Your task to perform on an android device: open app "Google Pay: Save, Pay, Manage" Image 0: 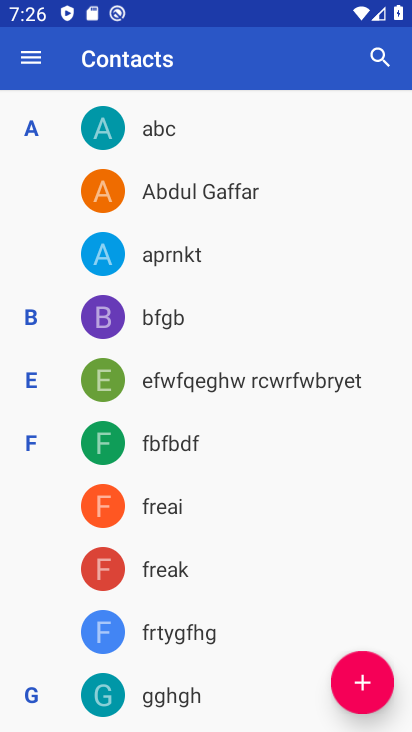
Step 0: press home button
Your task to perform on an android device: open app "Google Pay: Save, Pay, Manage" Image 1: 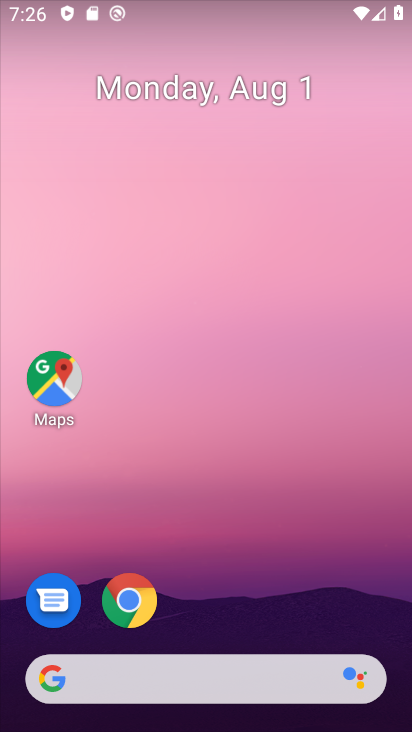
Step 1: drag from (146, 578) to (45, 34)
Your task to perform on an android device: open app "Google Pay: Save, Pay, Manage" Image 2: 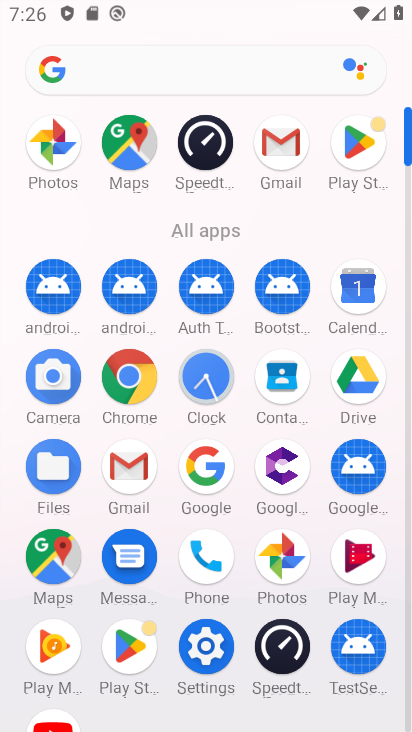
Step 2: click (351, 136)
Your task to perform on an android device: open app "Google Pay: Save, Pay, Manage" Image 3: 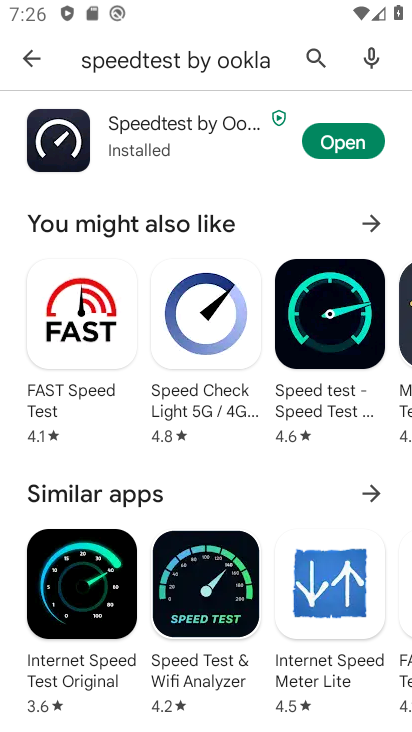
Step 3: click (28, 62)
Your task to perform on an android device: open app "Google Pay: Save, Pay, Manage" Image 4: 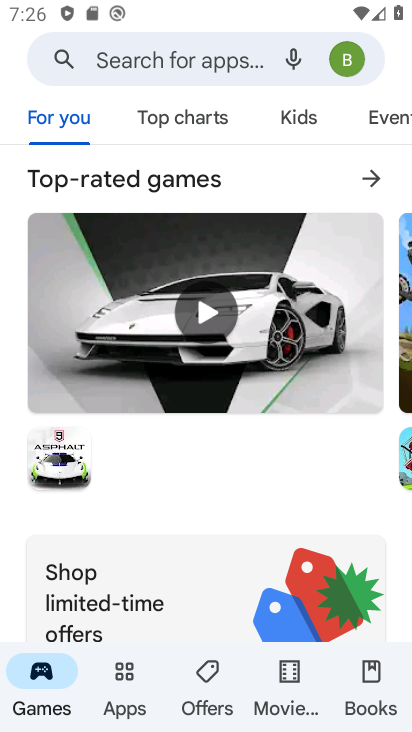
Step 4: click (117, 62)
Your task to perform on an android device: open app "Google Pay: Save, Pay, Manage" Image 5: 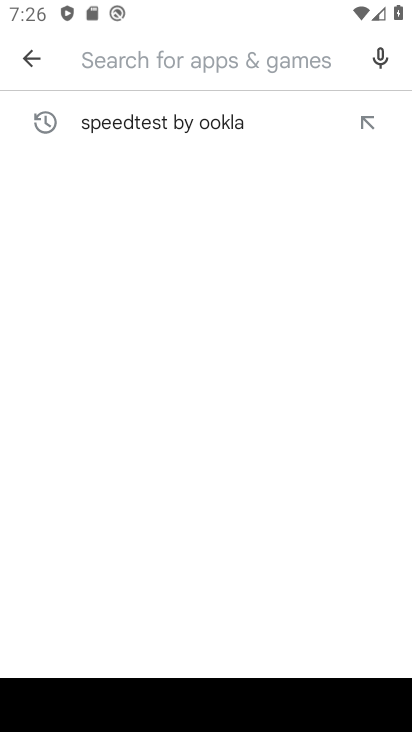
Step 5: type "Google Pay"
Your task to perform on an android device: open app "Google Pay: Save, Pay, Manage" Image 6: 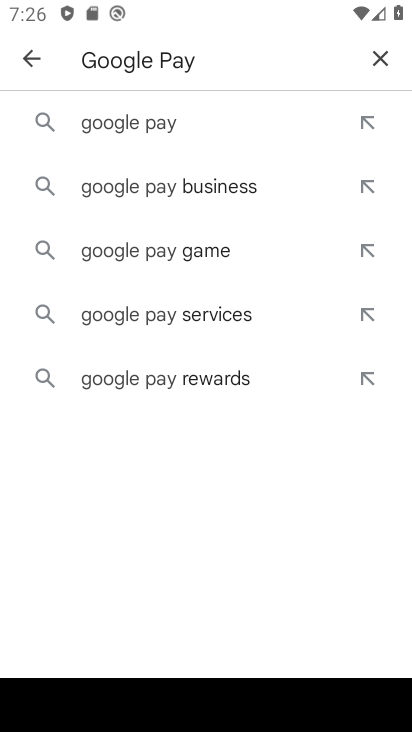
Step 6: click (151, 133)
Your task to perform on an android device: open app "Google Pay: Save, Pay, Manage" Image 7: 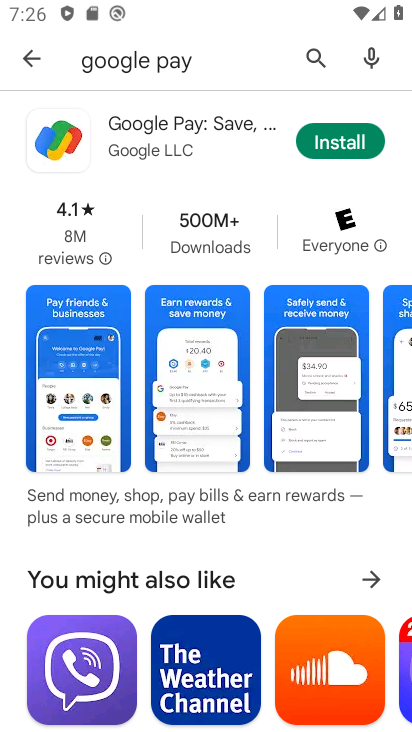
Step 7: click (319, 135)
Your task to perform on an android device: open app "Google Pay: Save, Pay, Manage" Image 8: 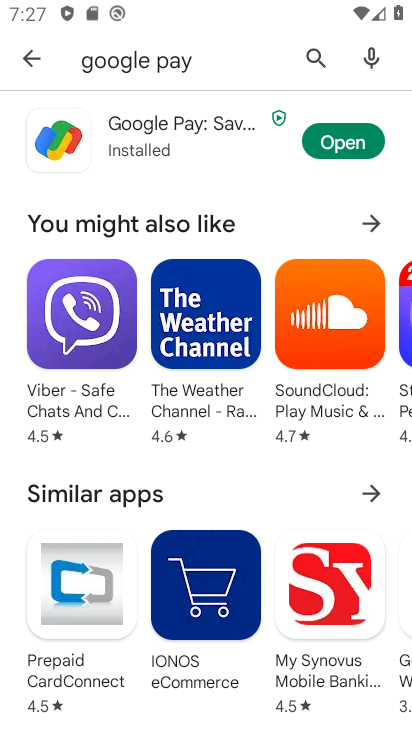
Step 8: click (327, 135)
Your task to perform on an android device: open app "Google Pay: Save, Pay, Manage" Image 9: 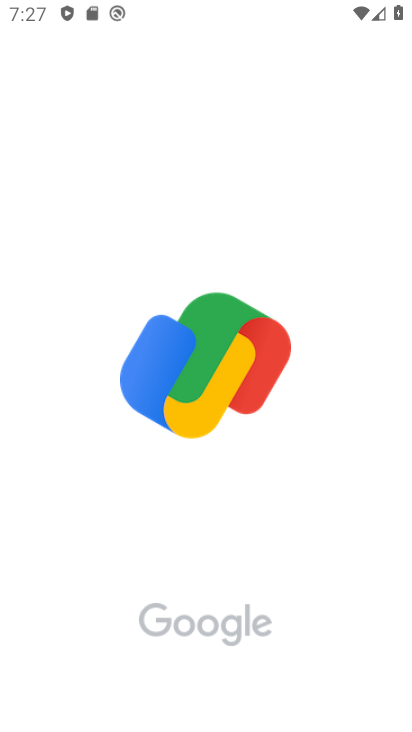
Step 9: task complete